Your task to perform on an android device: turn off priority inbox in the gmail app Image 0: 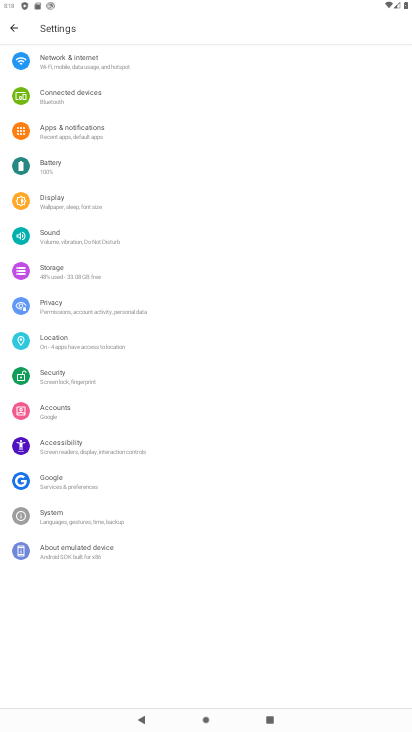
Step 0: press home button
Your task to perform on an android device: turn off priority inbox in the gmail app Image 1: 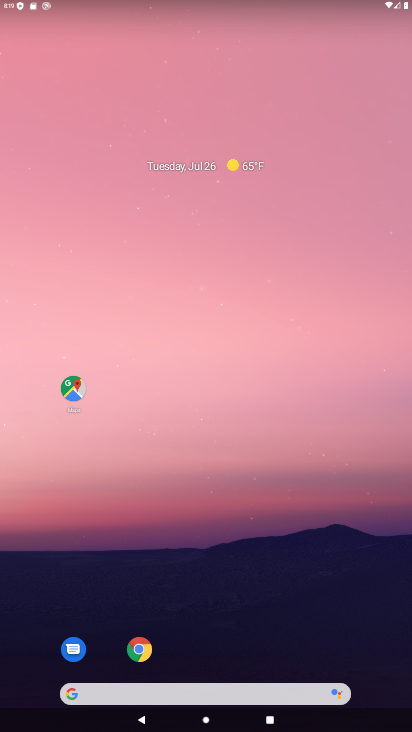
Step 1: drag from (219, 668) to (312, 28)
Your task to perform on an android device: turn off priority inbox in the gmail app Image 2: 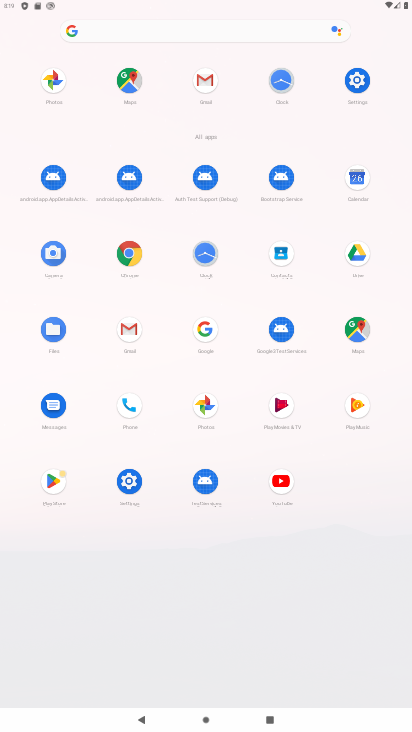
Step 2: click (205, 80)
Your task to perform on an android device: turn off priority inbox in the gmail app Image 3: 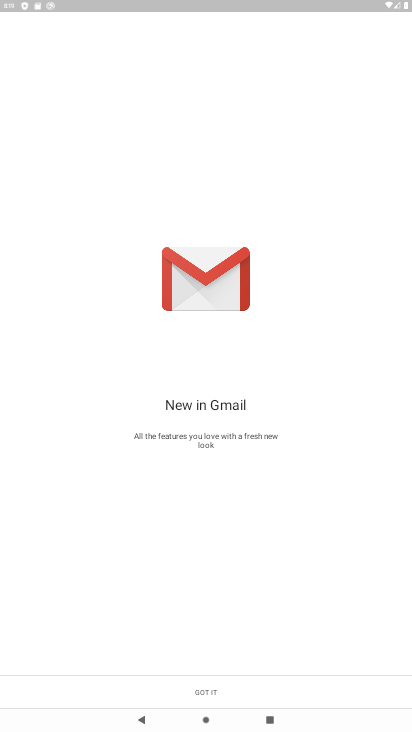
Step 3: click (204, 692)
Your task to perform on an android device: turn off priority inbox in the gmail app Image 4: 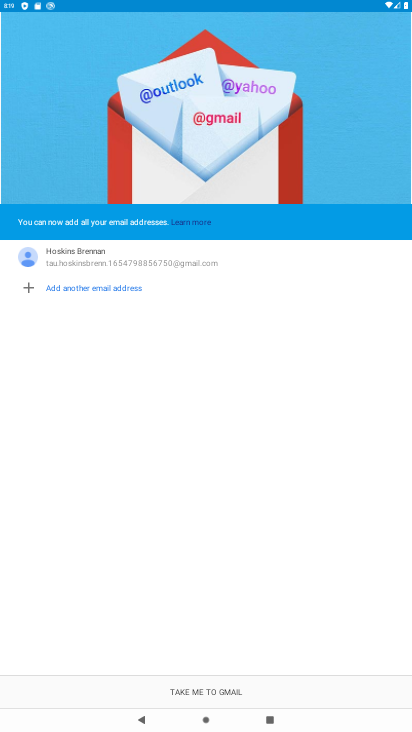
Step 4: click (196, 691)
Your task to perform on an android device: turn off priority inbox in the gmail app Image 5: 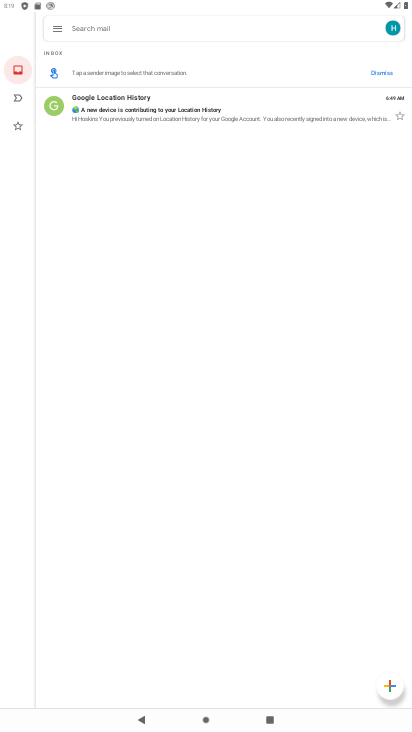
Step 5: click (56, 27)
Your task to perform on an android device: turn off priority inbox in the gmail app Image 6: 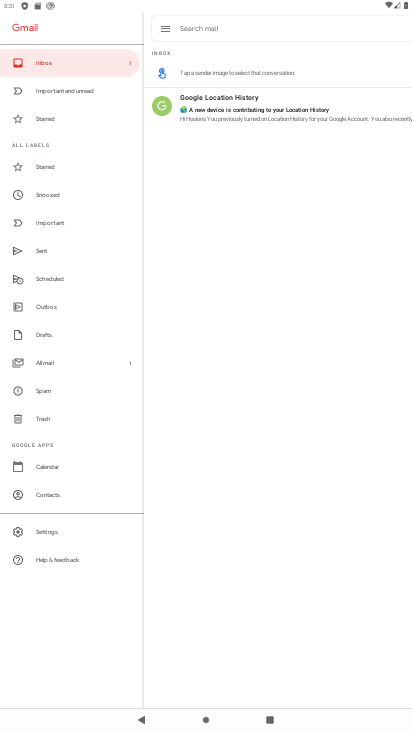
Step 6: click (44, 534)
Your task to perform on an android device: turn off priority inbox in the gmail app Image 7: 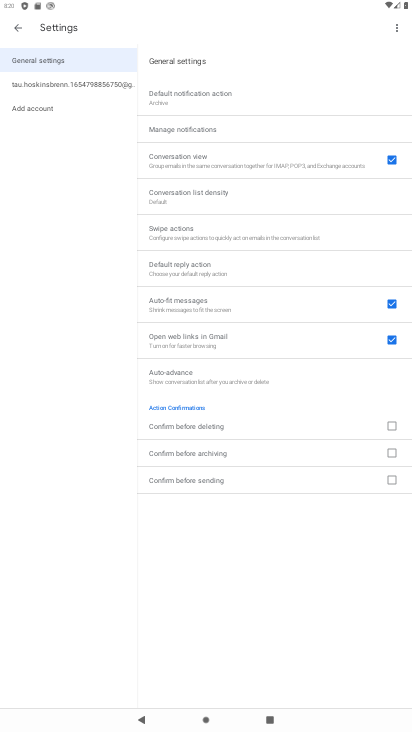
Step 7: click (87, 81)
Your task to perform on an android device: turn off priority inbox in the gmail app Image 8: 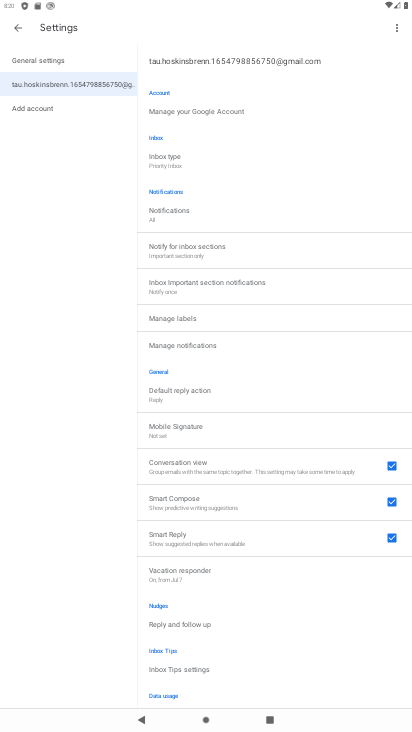
Step 8: click (175, 163)
Your task to perform on an android device: turn off priority inbox in the gmail app Image 9: 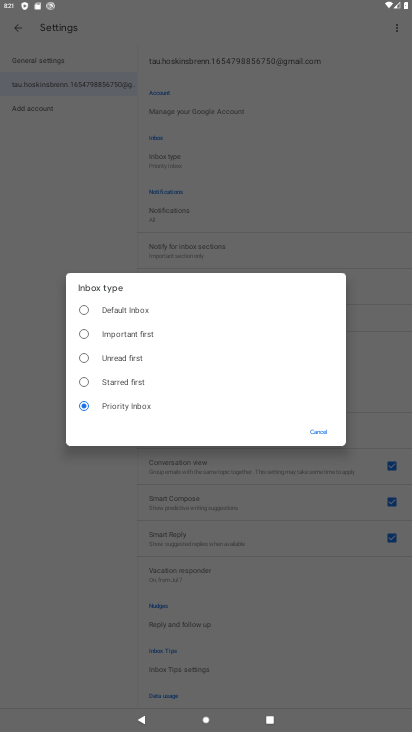
Step 9: click (88, 384)
Your task to perform on an android device: turn off priority inbox in the gmail app Image 10: 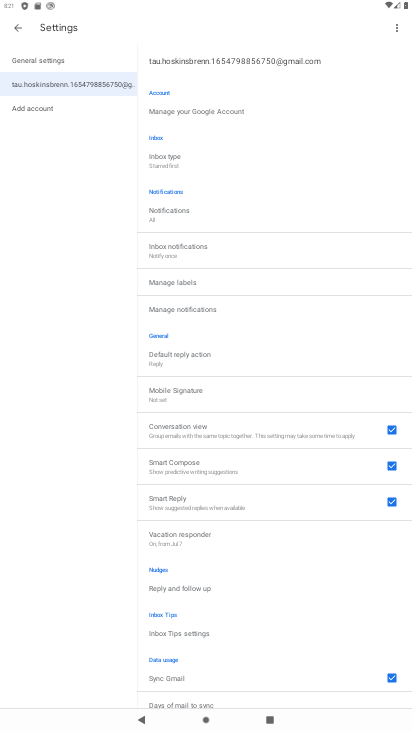
Step 10: task complete